Your task to perform on an android device: turn off sleep mode Image 0: 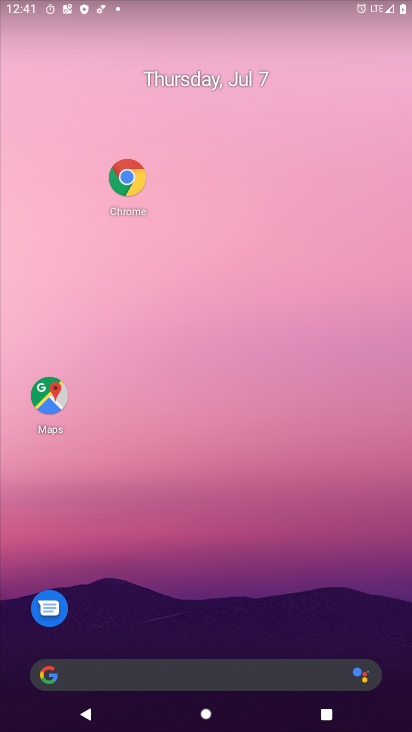
Step 0: drag from (282, 661) to (240, 249)
Your task to perform on an android device: turn off sleep mode Image 1: 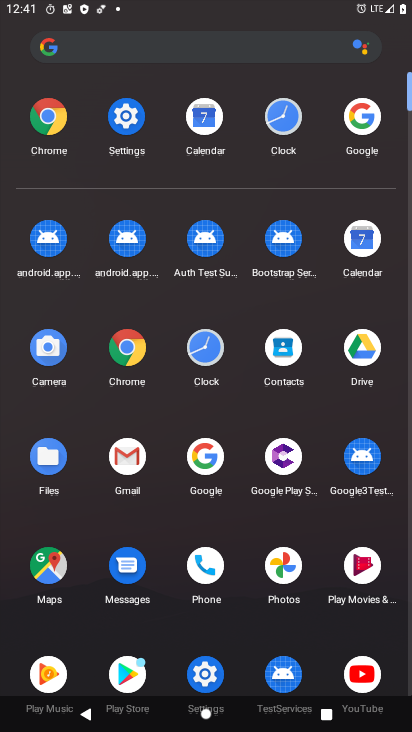
Step 1: click (297, 131)
Your task to perform on an android device: turn off sleep mode Image 2: 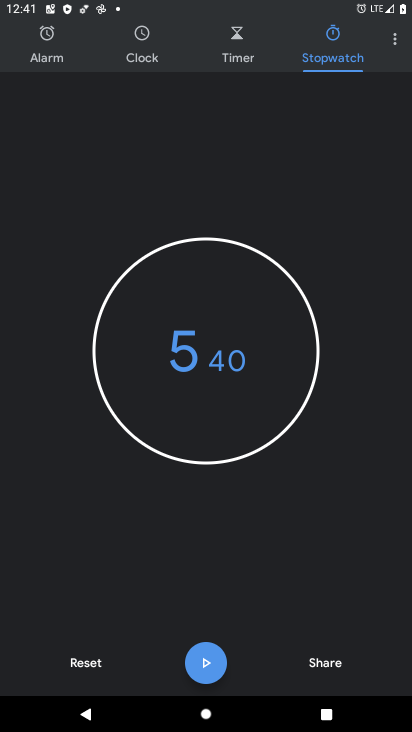
Step 2: click (393, 39)
Your task to perform on an android device: turn off sleep mode Image 3: 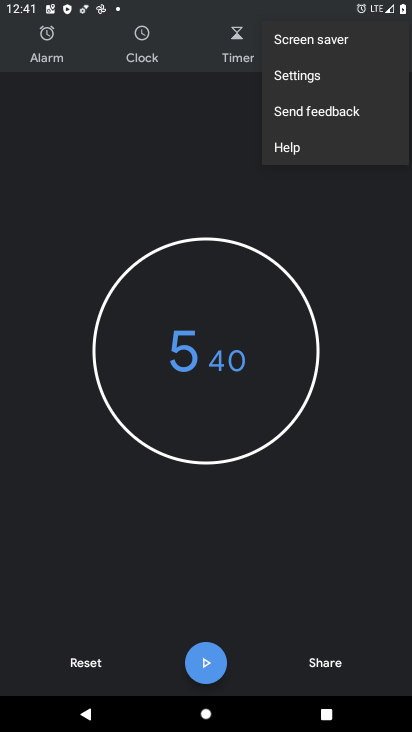
Step 3: press home button
Your task to perform on an android device: turn off sleep mode Image 4: 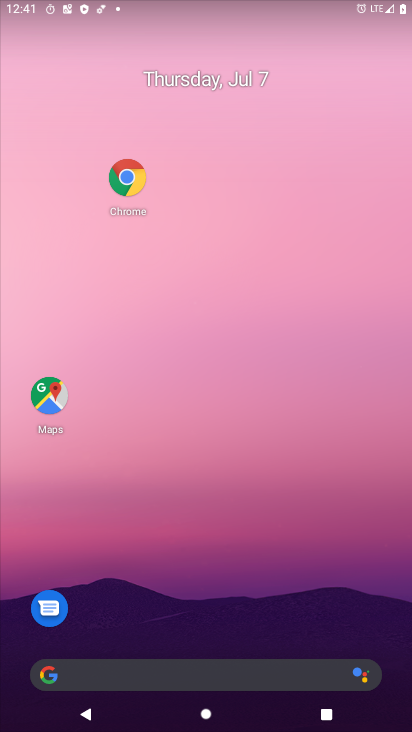
Step 4: drag from (295, 665) to (243, 271)
Your task to perform on an android device: turn off sleep mode Image 5: 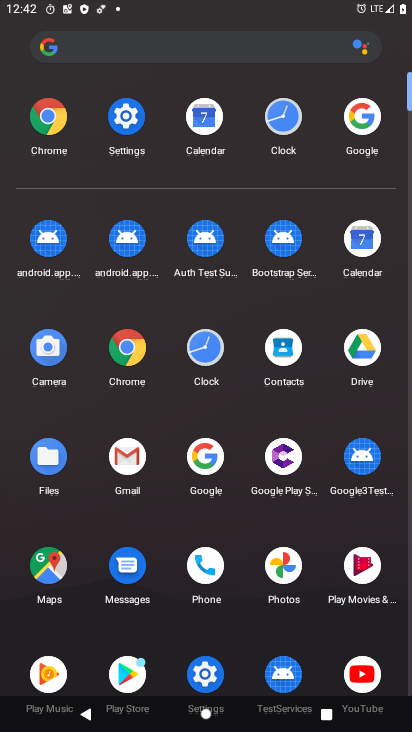
Step 5: click (208, 20)
Your task to perform on an android device: turn off sleep mode Image 6: 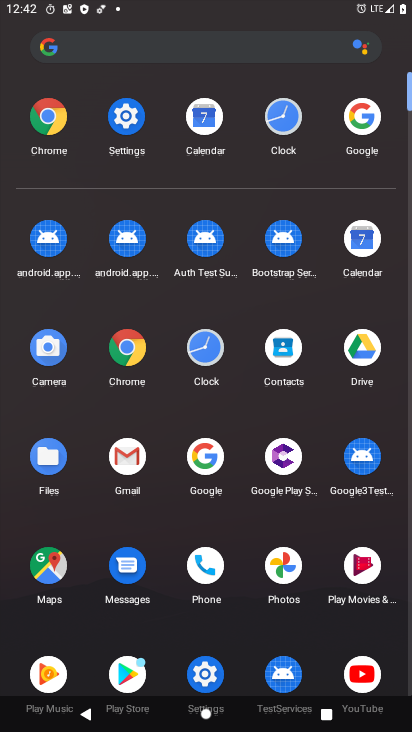
Step 6: click (219, 671)
Your task to perform on an android device: turn off sleep mode Image 7: 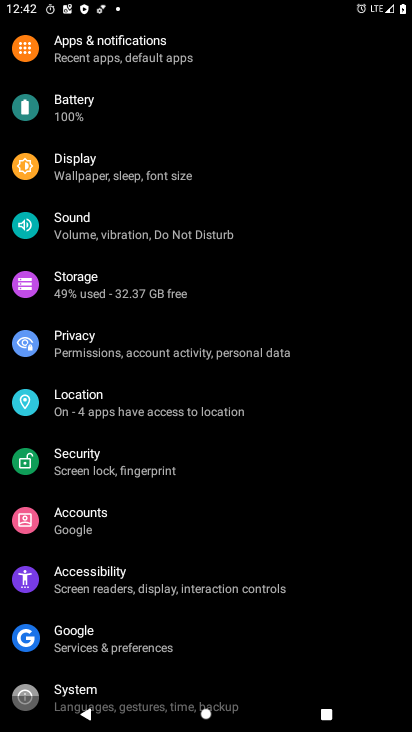
Step 7: click (162, 179)
Your task to perform on an android device: turn off sleep mode Image 8: 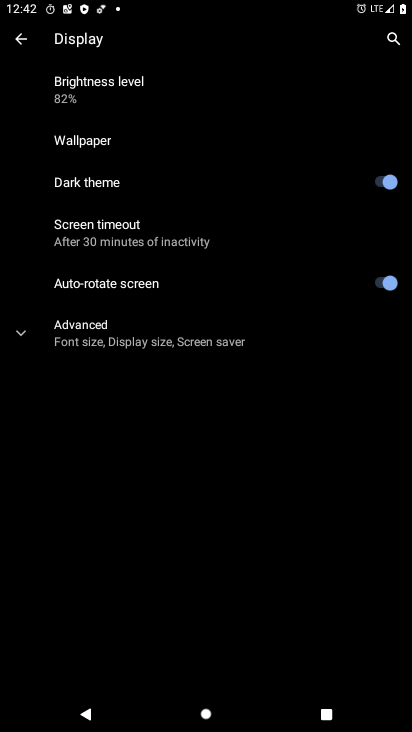
Step 8: click (109, 232)
Your task to perform on an android device: turn off sleep mode Image 9: 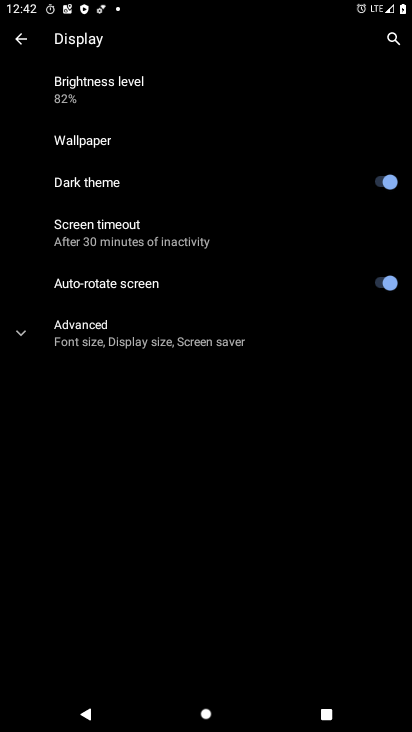
Step 9: click (128, 242)
Your task to perform on an android device: turn off sleep mode Image 10: 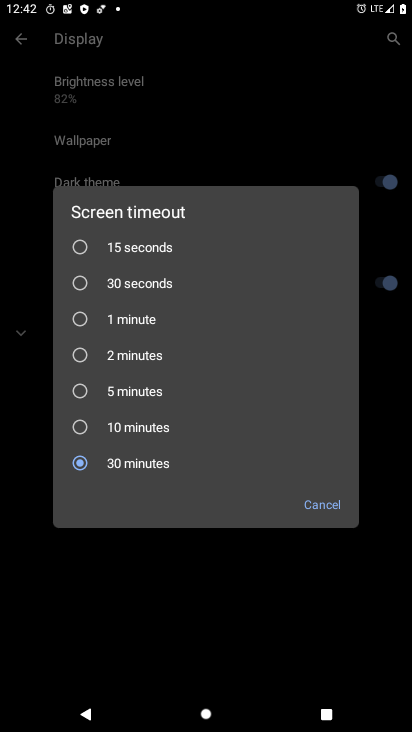
Step 10: click (146, 254)
Your task to perform on an android device: turn off sleep mode Image 11: 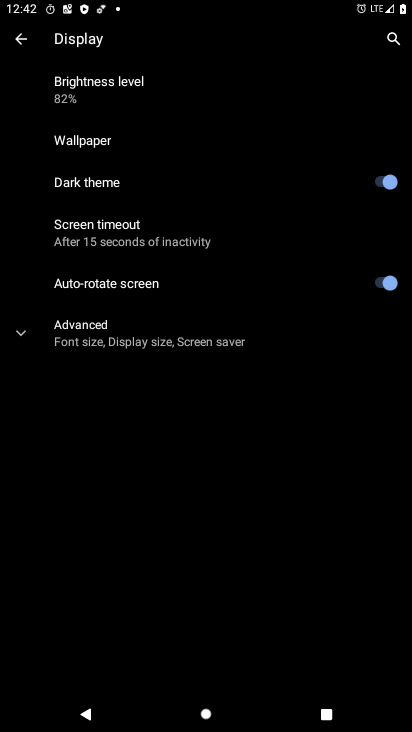
Step 11: click (110, 341)
Your task to perform on an android device: turn off sleep mode Image 12: 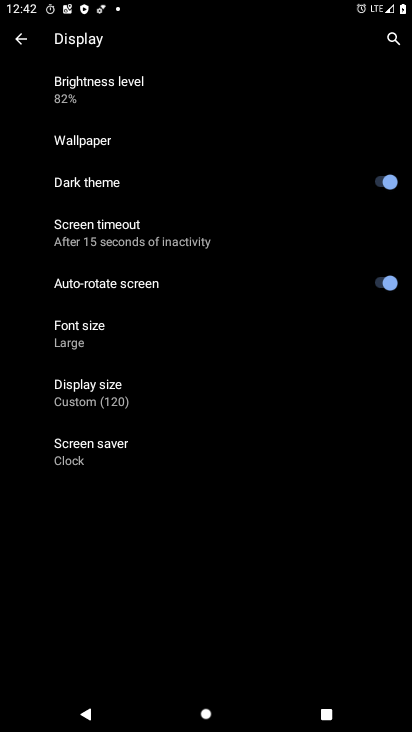
Step 12: task complete